Your task to perform on an android device: change alarm snooze length Image 0: 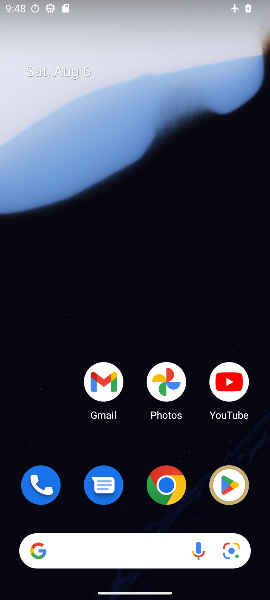
Step 0: drag from (194, 445) to (206, 90)
Your task to perform on an android device: change alarm snooze length Image 1: 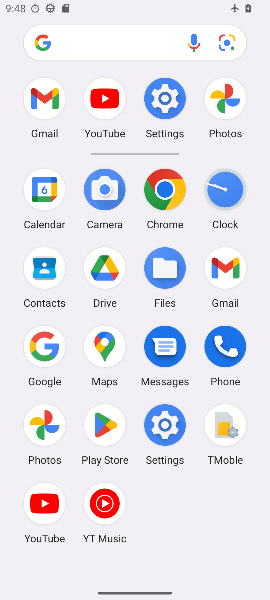
Step 1: click (230, 182)
Your task to perform on an android device: change alarm snooze length Image 2: 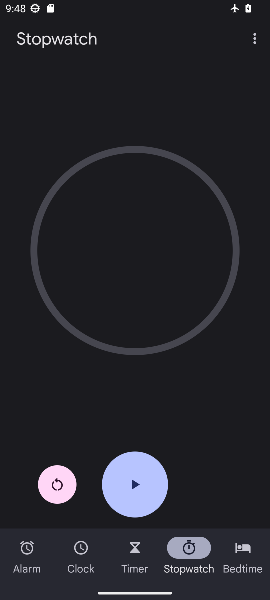
Step 2: click (253, 31)
Your task to perform on an android device: change alarm snooze length Image 3: 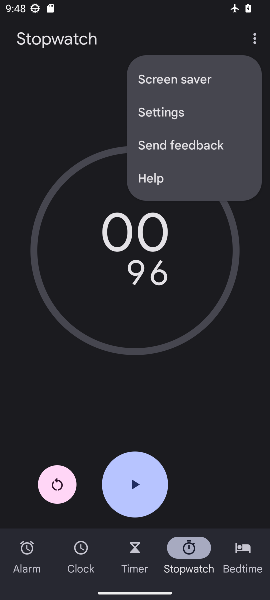
Step 3: click (180, 124)
Your task to perform on an android device: change alarm snooze length Image 4: 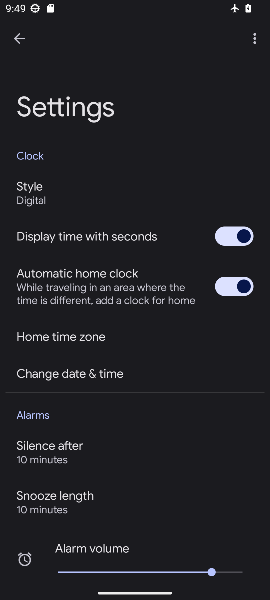
Step 4: click (72, 508)
Your task to perform on an android device: change alarm snooze length Image 5: 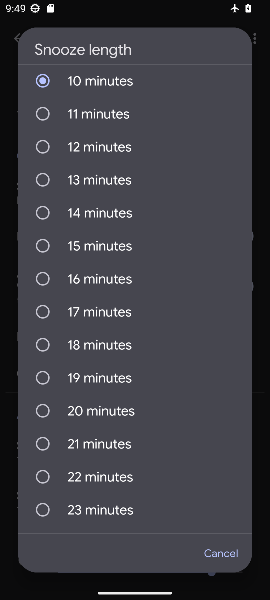
Step 5: click (107, 107)
Your task to perform on an android device: change alarm snooze length Image 6: 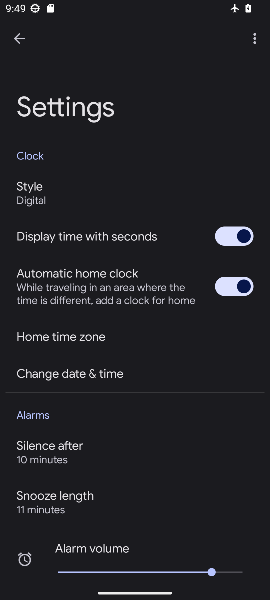
Step 6: click (73, 497)
Your task to perform on an android device: change alarm snooze length Image 7: 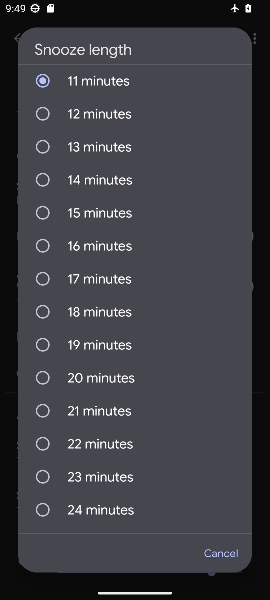
Step 7: click (113, 118)
Your task to perform on an android device: change alarm snooze length Image 8: 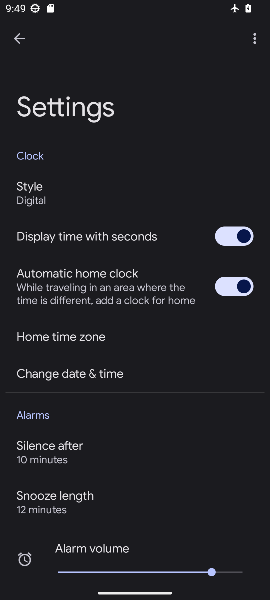
Step 8: task complete